Your task to perform on an android device: open app "Walmart Shopping & Grocery" (install if not already installed) and enter user name: "Hans@icloud.com" and password: "executing" Image 0: 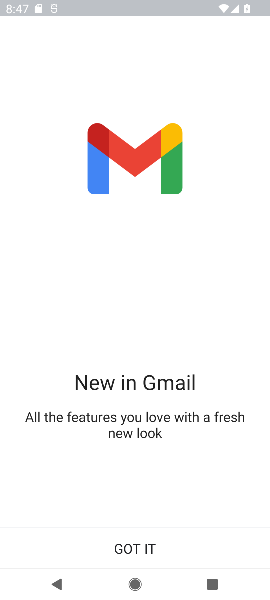
Step 0: press home button
Your task to perform on an android device: open app "Walmart Shopping & Grocery" (install if not already installed) and enter user name: "Hans@icloud.com" and password: "executing" Image 1: 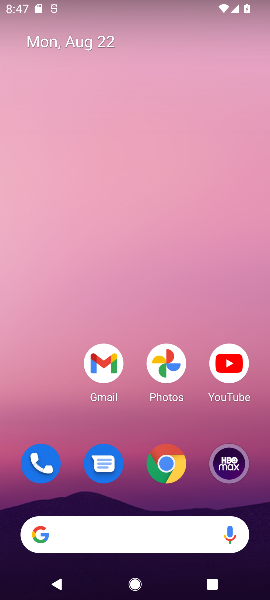
Step 1: drag from (127, 461) to (100, 9)
Your task to perform on an android device: open app "Walmart Shopping & Grocery" (install if not already installed) and enter user name: "Hans@icloud.com" and password: "executing" Image 2: 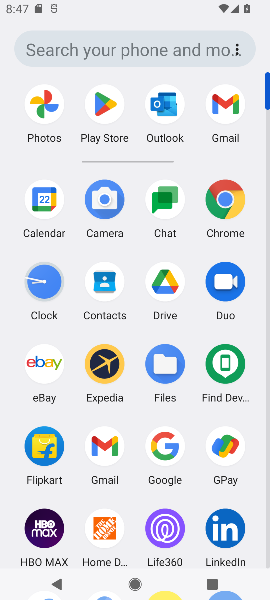
Step 2: click (105, 98)
Your task to perform on an android device: open app "Walmart Shopping & Grocery" (install if not already installed) and enter user name: "Hans@icloud.com" and password: "executing" Image 3: 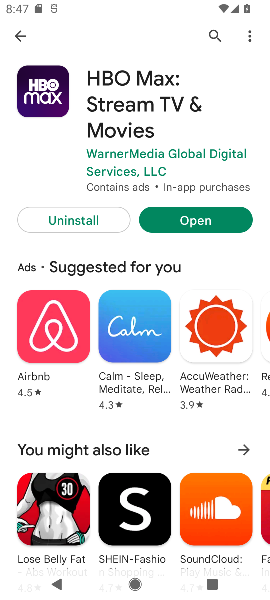
Step 3: click (22, 33)
Your task to perform on an android device: open app "Walmart Shopping & Grocery" (install if not already installed) and enter user name: "Hans@icloud.com" and password: "executing" Image 4: 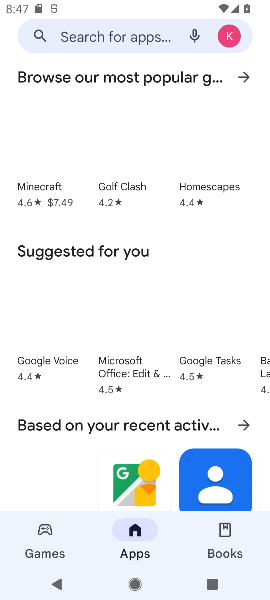
Step 4: click (73, 30)
Your task to perform on an android device: open app "Walmart Shopping & Grocery" (install if not already installed) and enter user name: "Hans@icloud.com" and password: "executing" Image 5: 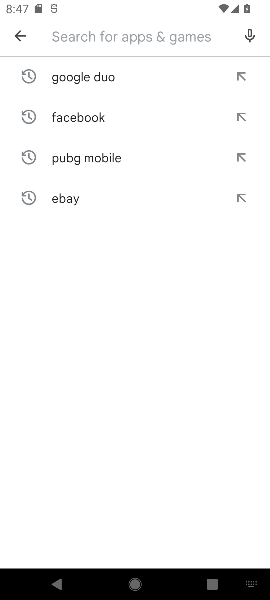
Step 5: type "Walmart Shopping & Grocery"
Your task to perform on an android device: open app "Walmart Shopping & Grocery" (install if not already installed) and enter user name: "Hans@icloud.com" and password: "executing" Image 6: 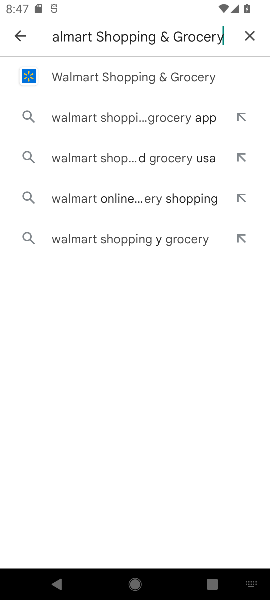
Step 6: click (84, 76)
Your task to perform on an android device: open app "Walmart Shopping & Grocery" (install if not already installed) and enter user name: "Hans@icloud.com" and password: "executing" Image 7: 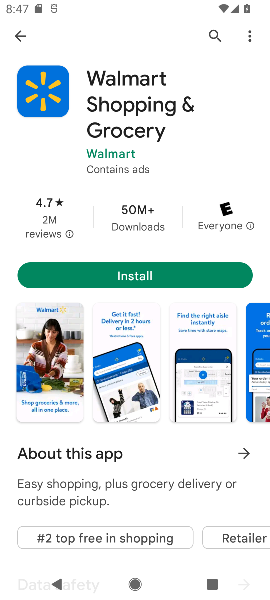
Step 7: click (140, 276)
Your task to perform on an android device: open app "Walmart Shopping & Grocery" (install if not already installed) and enter user name: "Hans@icloud.com" and password: "executing" Image 8: 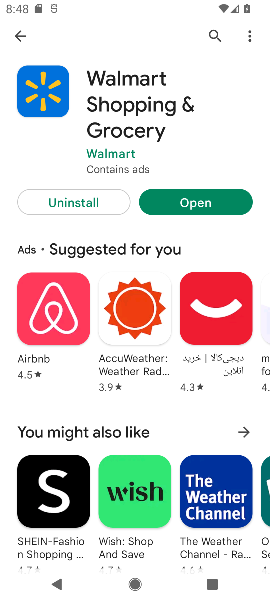
Step 8: click (232, 199)
Your task to perform on an android device: open app "Walmart Shopping & Grocery" (install if not already installed) and enter user name: "Hans@icloud.com" and password: "executing" Image 9: 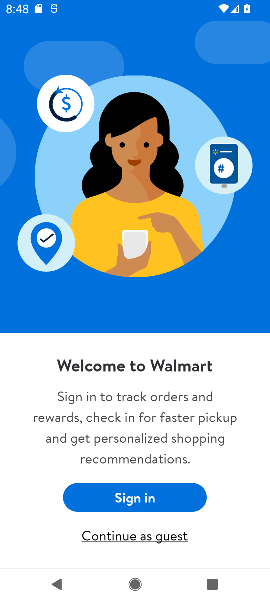
Step 9: task complete